Your task to perform on an android device: toggle notification dots Image 0: 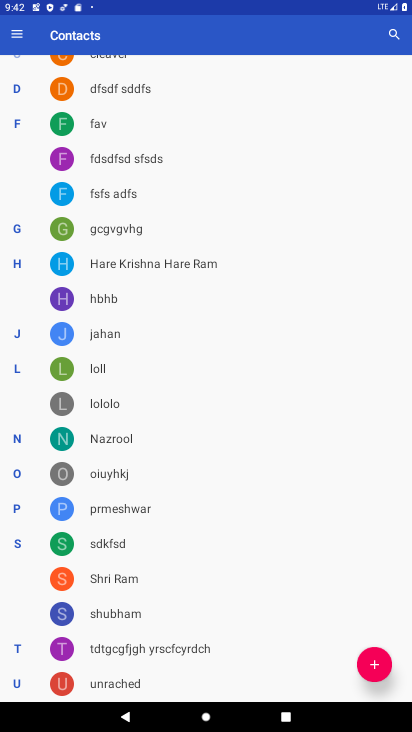
Step 0: press home button
Your task to perform on an android device: toggle notification dots Image 1: 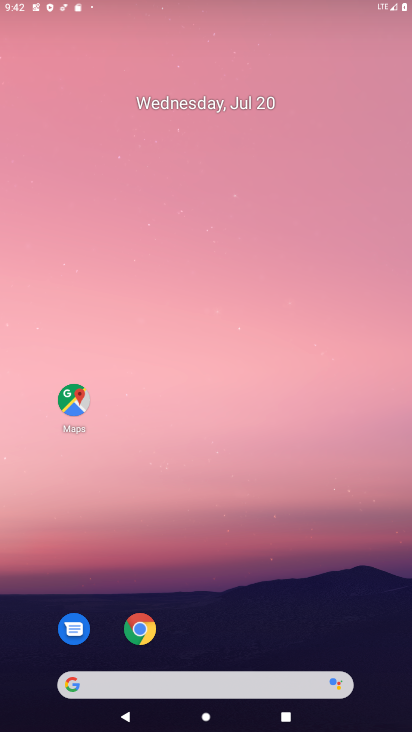
Step 1: drag from (327, 637) to (269, 28)
Your task to perform on an android device: toggle notification dots Image 2: 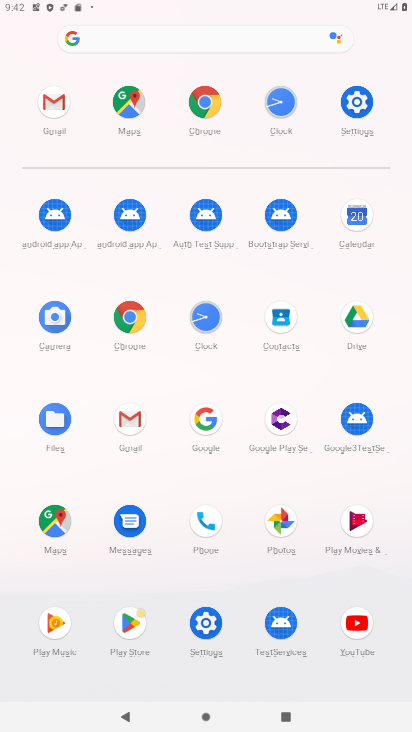
Step 2: click (224, 618)
Your task to perform on an android device: toggle notification dots Image 3: 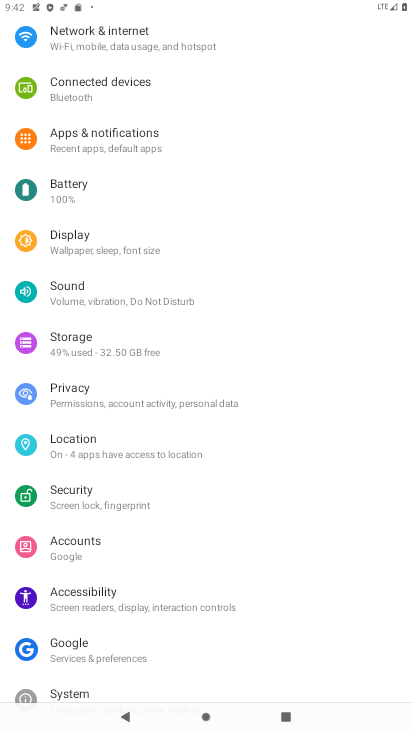
Step 3: click (112, 143)
Your task to perform on an android device: toggle notification dots Image 4: 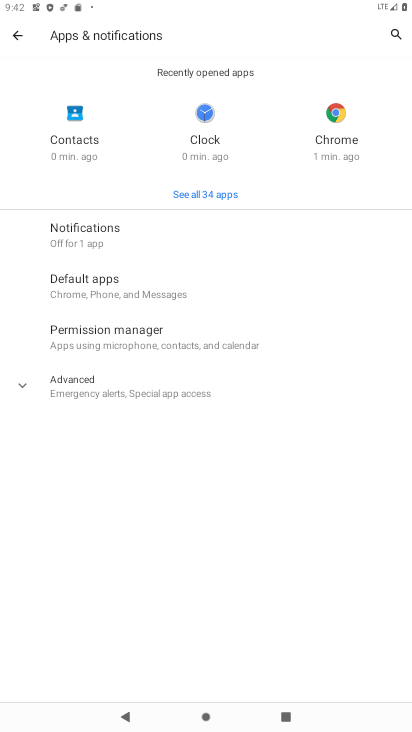
Step 4: click (57, 239)
Your task to perform on an android device: toggle notification dots Image 5: 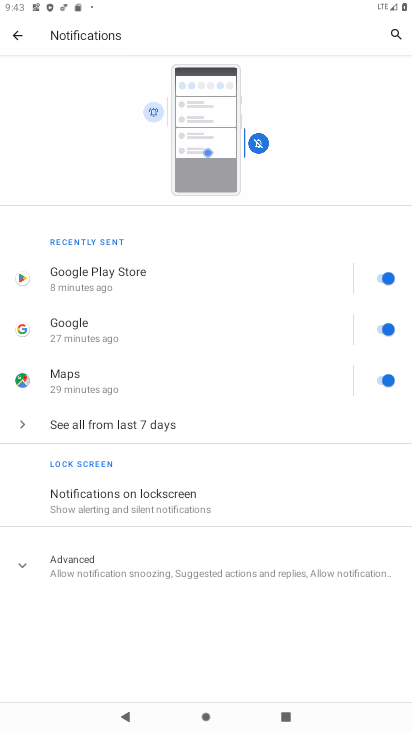
Step 5: click (77, 575)
Your task to perform on an android device: toggle notification dots Image 6: 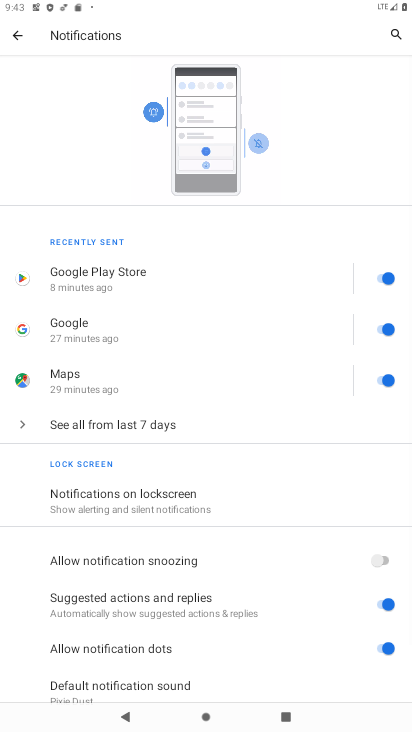
Step 6: drag from (84, 605) to (83, 399)
Your task to perform on an android device: toggle notification dots Image 7: 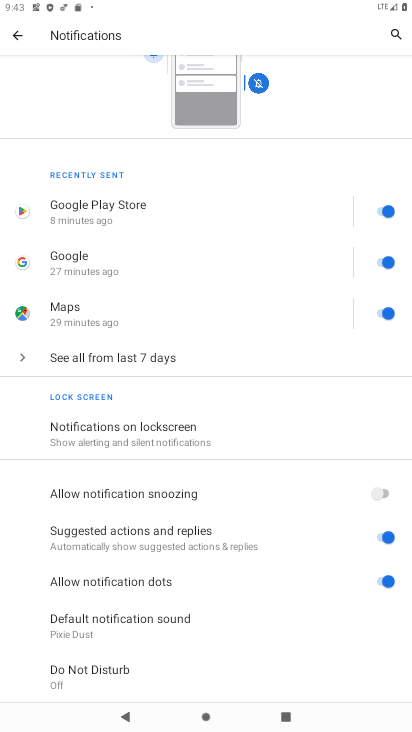
Step 7: click (379, 581)
Your task to perform on an android device: toggle notification dots Image 8: 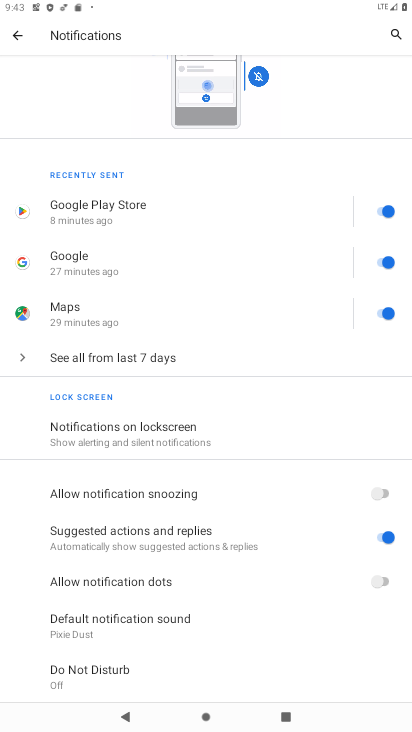
Step 8: task complete